Your task to perform on an android device: turn off wifi Image 0: 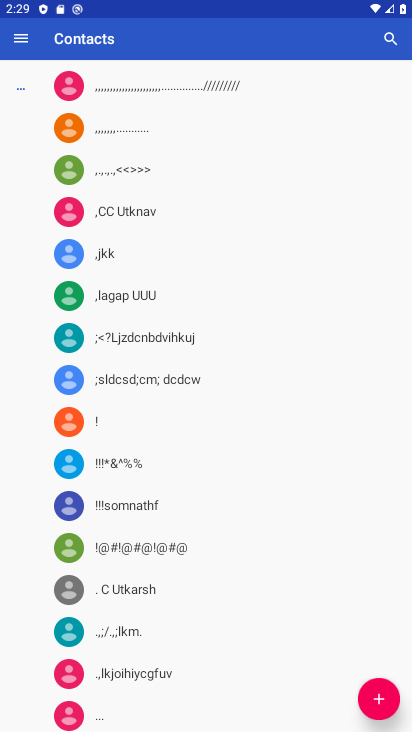
Step 0: press home button
Your task to perform on an android device: turn off wifi Image 1: 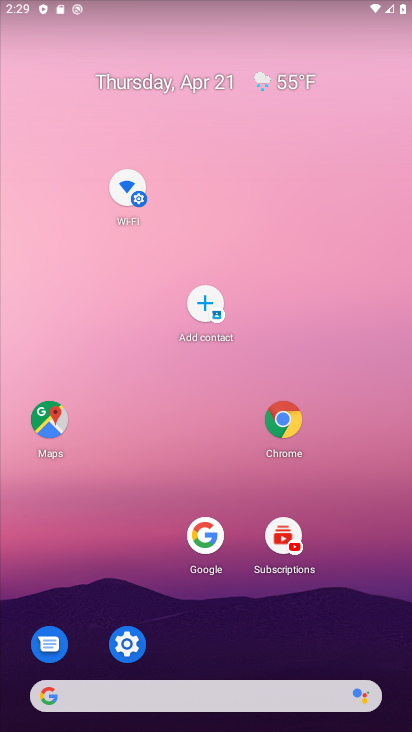
Step 1: drag from (310, 677) to (248, 176)
Your task to perform on an android device: turn off wifi Image 2: 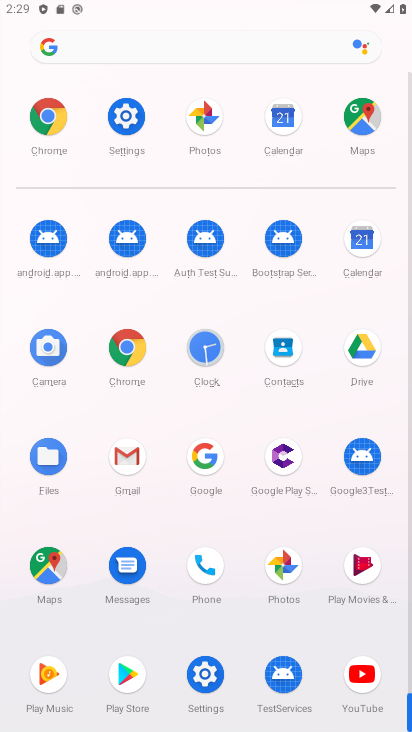
Step 2: click (128, 126)
Your task to perform on an android device: turn off wifi Image 3: 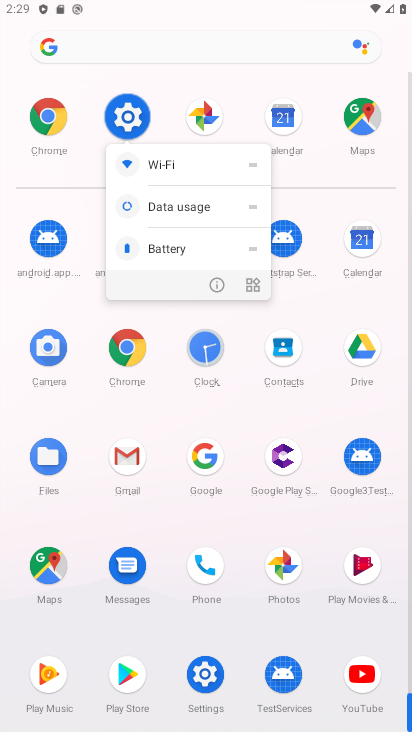
Step 3: click (128, 126)
Your task to perform on an android device: turn off wifi Image 4: 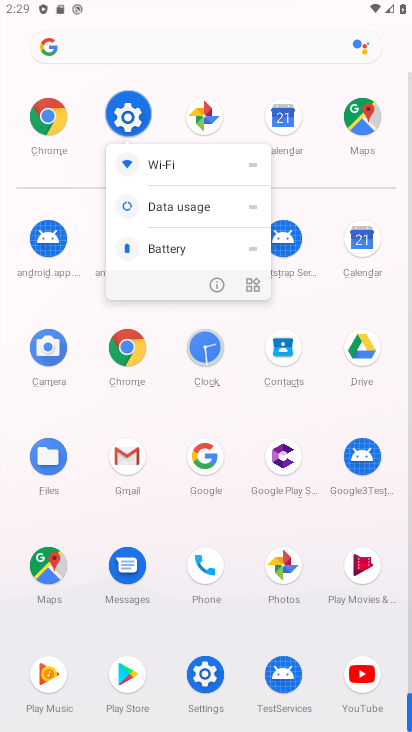
Step 4: click (129, 123)
Your task to perform on an android device: turn off wifi Image 5: 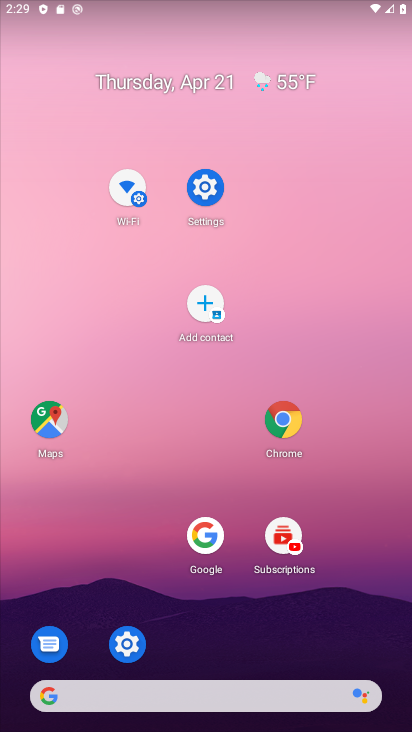
Step 5: drag from (348, 658) to (46, 1)
Your task to perform on an android device: turn off wifi Image 6: 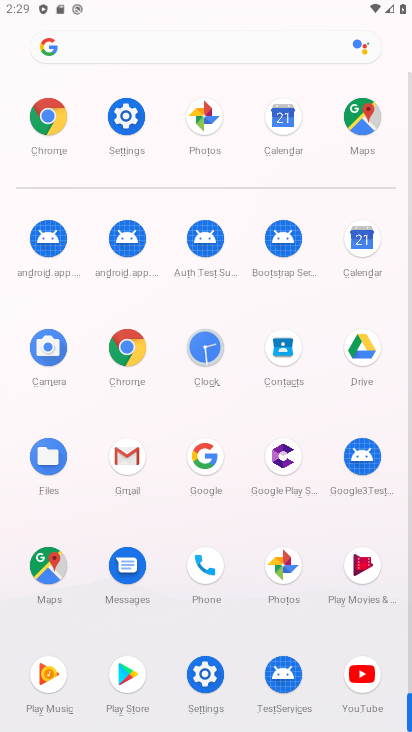
Step 6: drag from (314, 575) to (144, 65)
Your task to perform on an android device: turn off wifi Image 7: 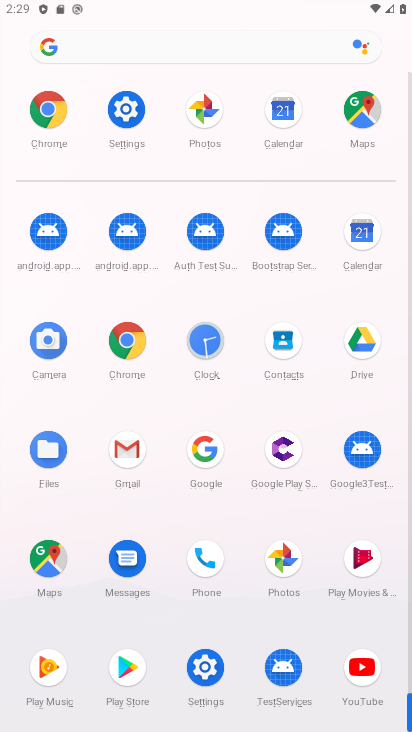
Step 7: click (129, 109)
Your task to perform on an android device: turn off wifi Image 8: 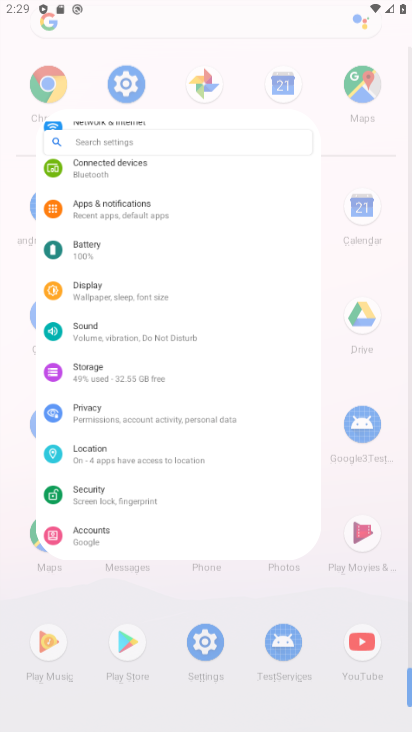
Step 8: click (129, 109)
Your task to perform on an android device: turn off wifi Image 9: 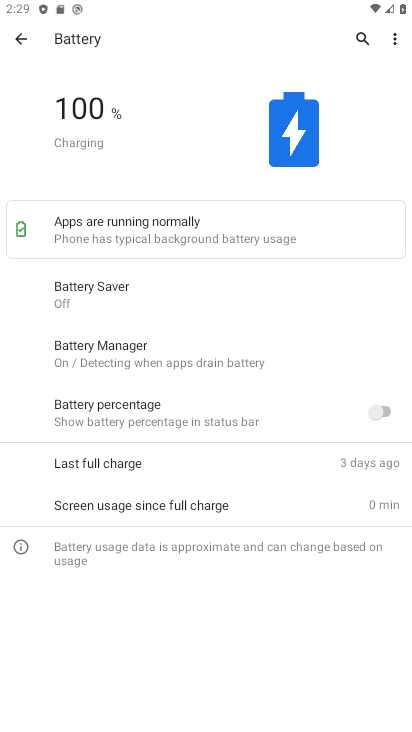
Step 9: click (12, 40)
Your task to perform on an android device: turn off wifi Image 10: 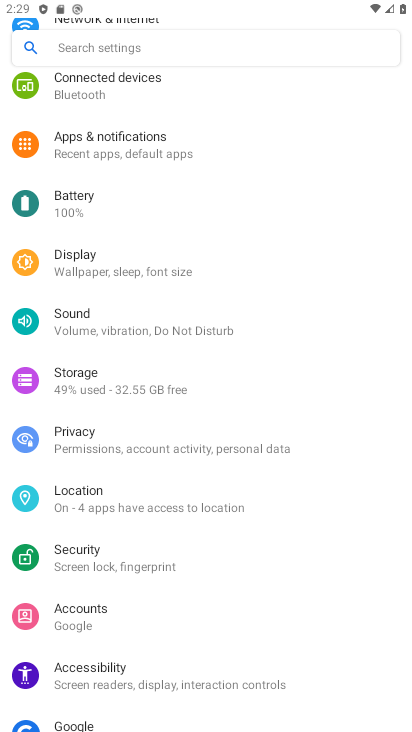
Step 10: drag from (91, 94) to (190, 511)
Your task to perform on an android device: turn off wifi Image 11: 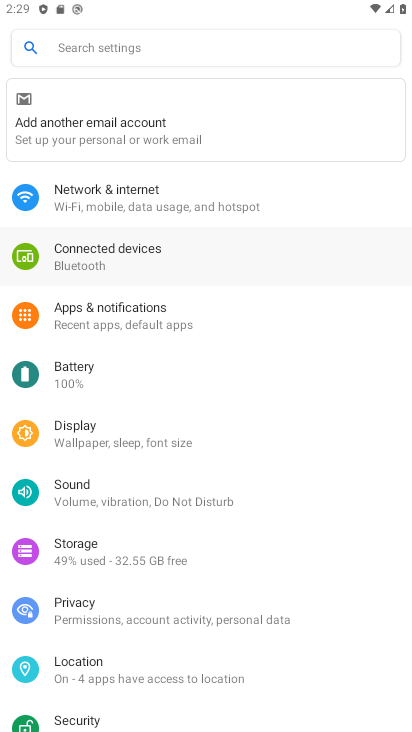
Step 11: drag from (132, 153) to (171, 531)
Your task to perform on an android device: turn off wifi Image 12: 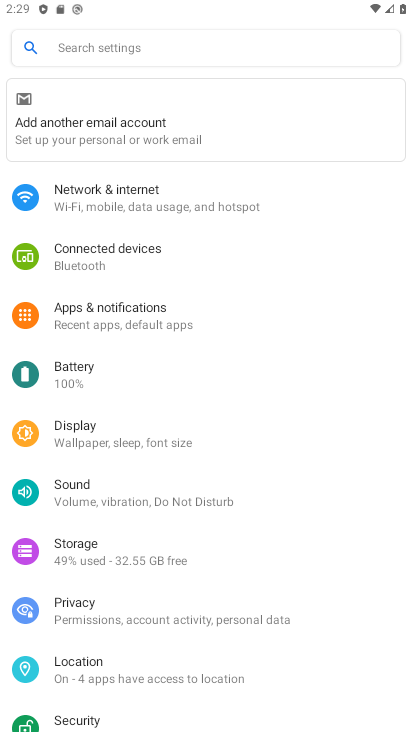
Step 12: click (114, 202)
Your task to perform on an android device: turn off wifi Image 13: 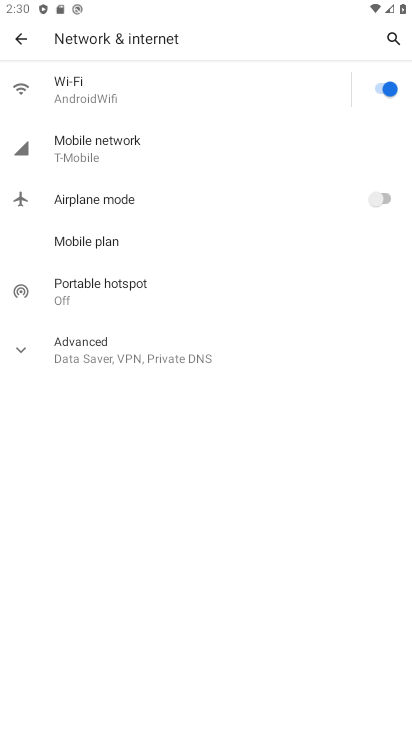
Step 13: click (391, 87)
Your task to perform on an android device: turn off wifi Image 14: 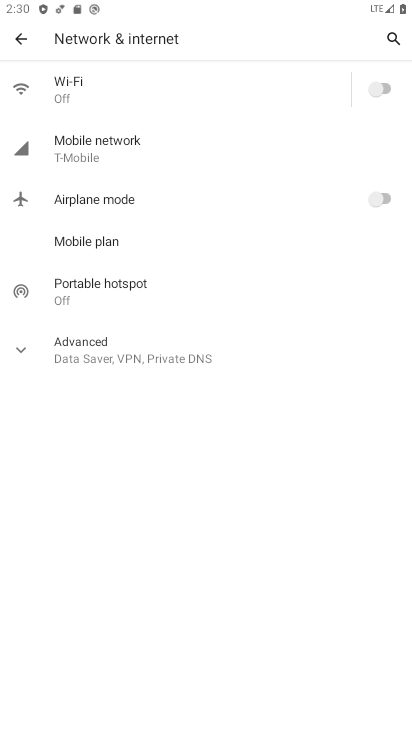
Step 14: task complete